Your task to perform on an android device: open app "Duolingo: language lessons" (install if not already installed), go to login, and select forgot password Image 0: 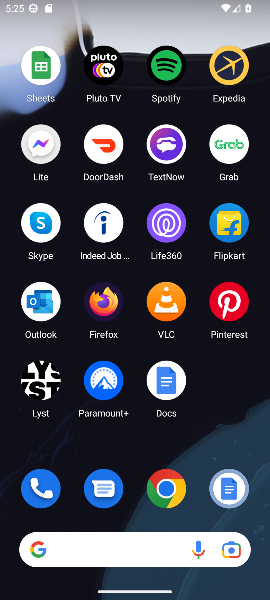
Step 0: drag from (136, 506) to (156, 13)
Your task to perform on an android device: open app "Duolingo: language lessons" (install if not already installed), go to login, and select forgot password Image 1: 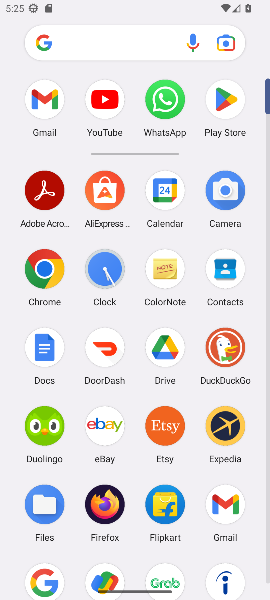
Step 1: click (224, 90)
Your task to perform on an android device: open app "Duolingo: language lessons" (install if not already installed), go to login, and select forgot password Image 2: 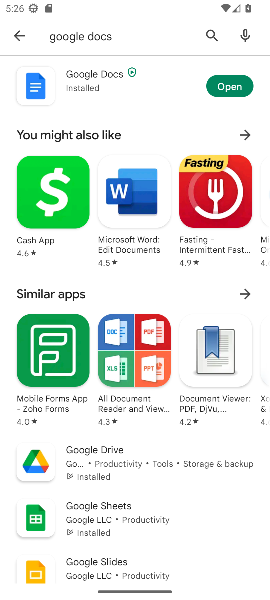
Step 2: click (211, 39)
Your task to perform on an android device: open app "Duolingo: language lessons" (install if not already installed), go to login, and select forgot password Image 3: 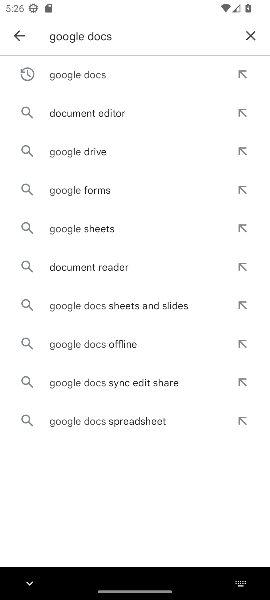
Step 3: click (236, 38)
Your task to perform on an android device: open app "Duolingo: language lessons" (install if not already installed), go to login, and select forgot password Image 4: 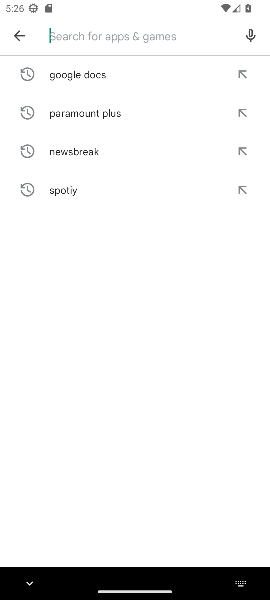
Step 4: click (244, 40)
Your task to perform on an android device: open app "Duolingo: language lessons" (install if not already installed), go to login, and select forgot password Image 5: 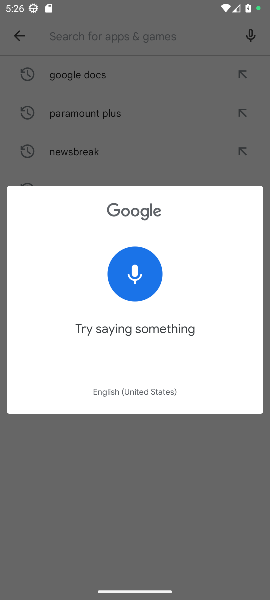
Step 5: type "duolingo"
Your task to perform on an android device: open app "Duolingo: language lessons" (install if not already installed), go to login, and select forgot password Image 6: 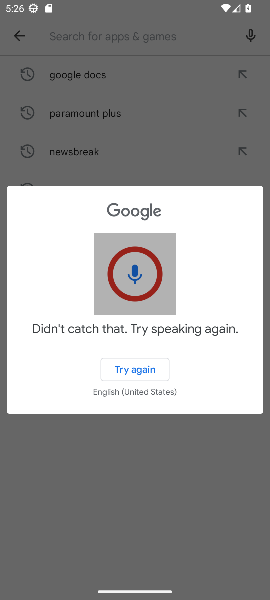
Step 6: click (124, 496)
Your task to perform on an android device: open app "Duolingo: language lessons" (install if not already installed), go to login, and select forgot password Image 7: 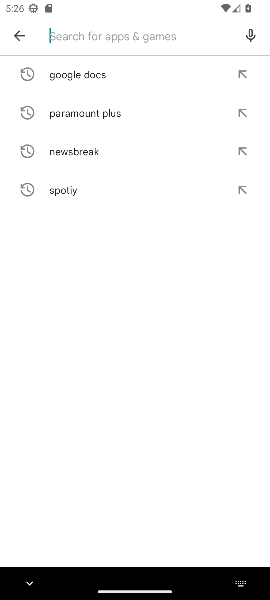
Step 7: type "duolingo"
Your task to perform on an android device: open app "Duolingo: language lessons" (install if not already installed), go to login, and select forgot password Image 8: 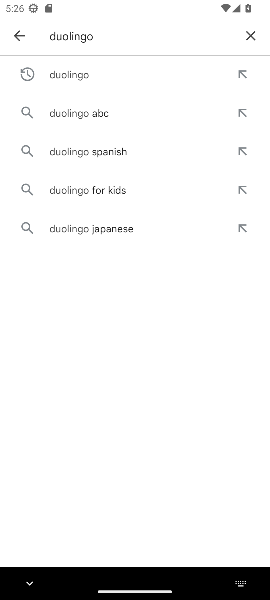
Step 8: click (93, 83)
Your task to perform on an android device: open app "Duolingo: language lessons" (install if not already installed), go to login, and select forgot password Image 9: 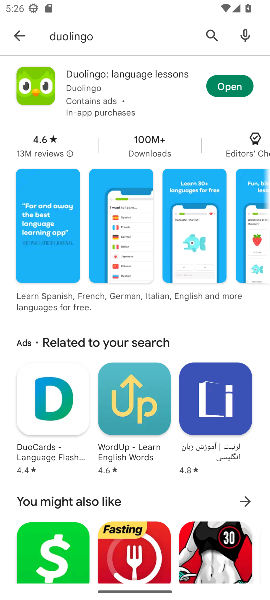
Step 9: click (214, 95)
Your task to perform on an android device: open app "Duolingo: language lessons" (install if not already installed), go to login, and select forgot password Image 10: 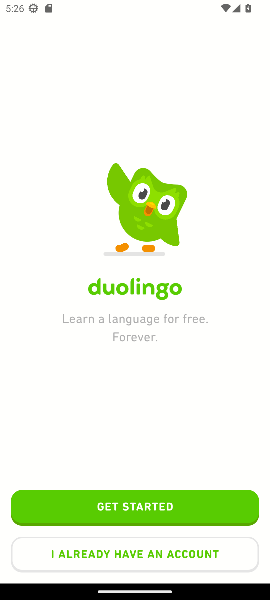
Step 10: task complete